Your task to perform on an android device: find snoozed emails in the gmail app Image 0: 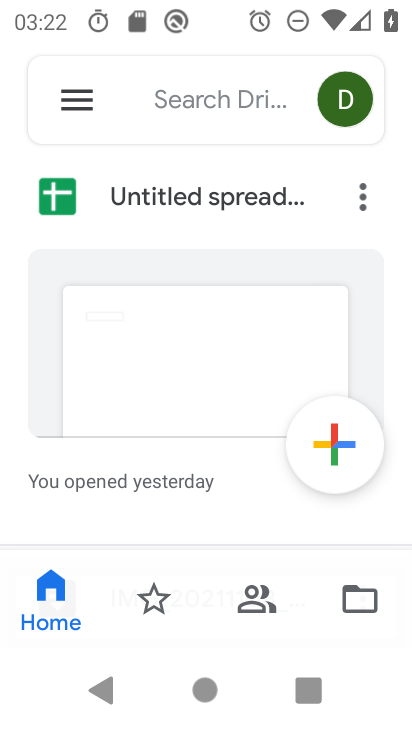
Step 0: press home button
Your task to perform on an android device: find snoozed emails in the gmail app Image 1: 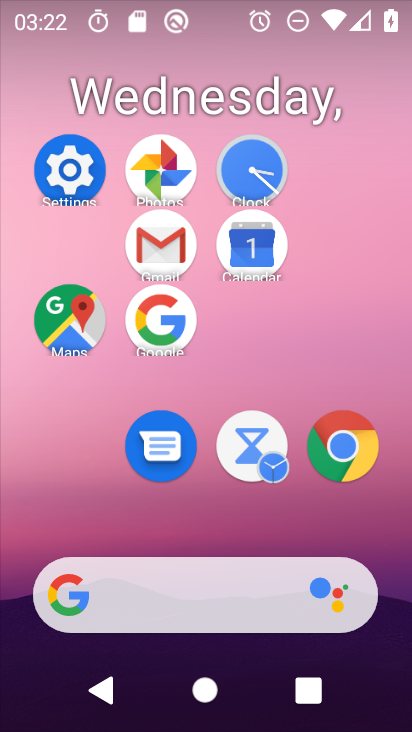
Step 1: click (172, 265)
Your task to perform on an android device: find snoozed emails in the gmail app Image 2: 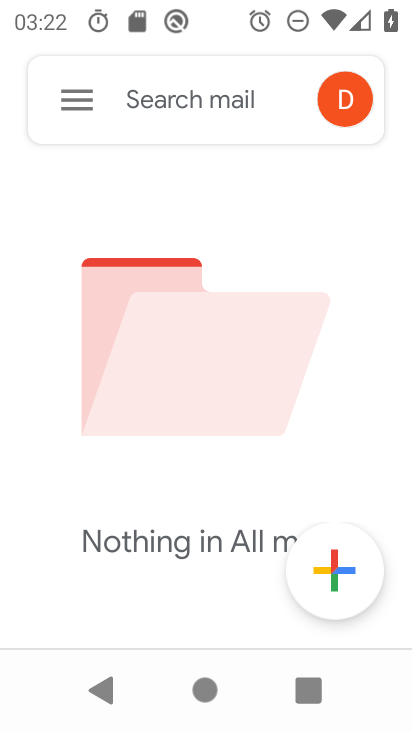
Step 2: click (68, 124)
Your task to perform on an android device: find snoozed emails in the gmail app Image 3: 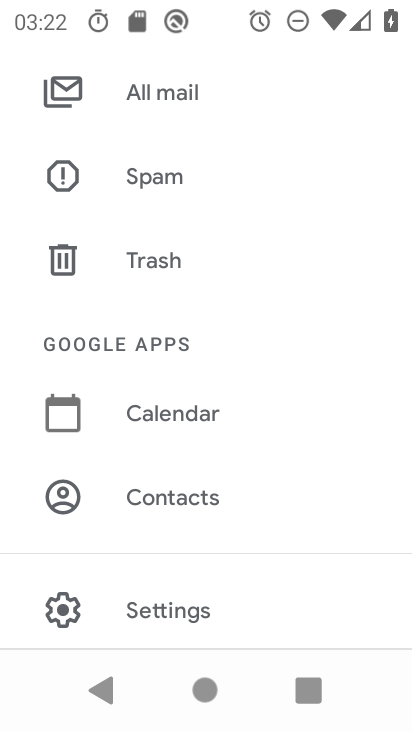
Step 3: drag from (204, 179) to (262, 698)
Your task to perform on an android device: find snoozed emails in the gmail app Image 4: 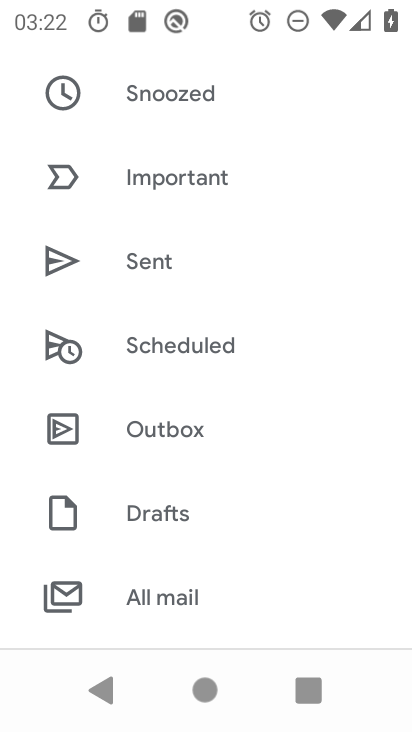
Step 4: drag from (276, 510) to (274, 603)
Your task to perform on an android device: find snoozed emails in the gmail app Image 5: 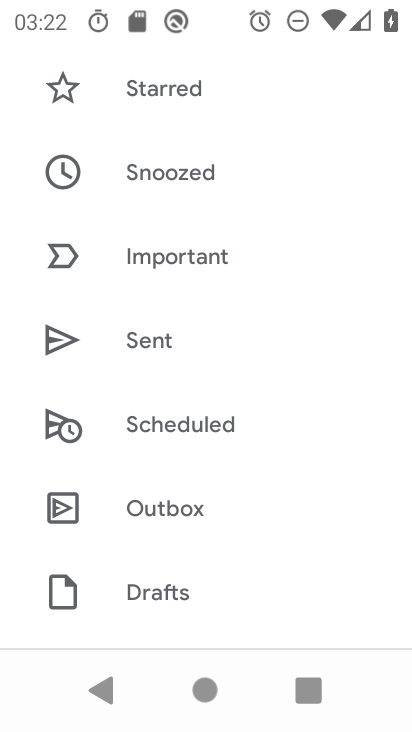
Step 5: click (243, 620)
Your task to perform on an android device: find snoozed emails in the gmail app Image 6: 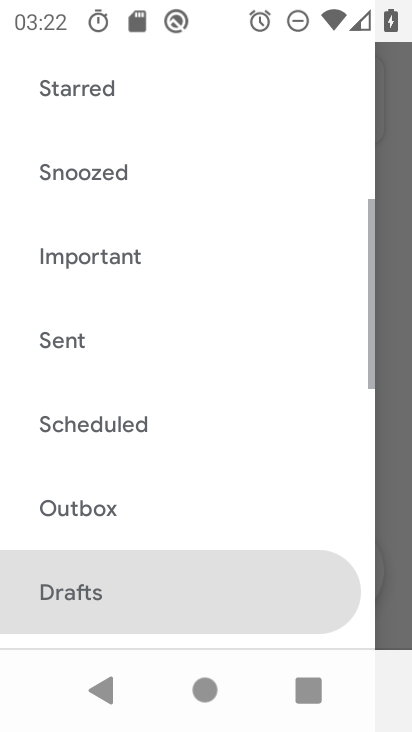
Step 6: click (312, 145)
Your task to perform on an android device: find snoozed emails in the gmail app Image 7: 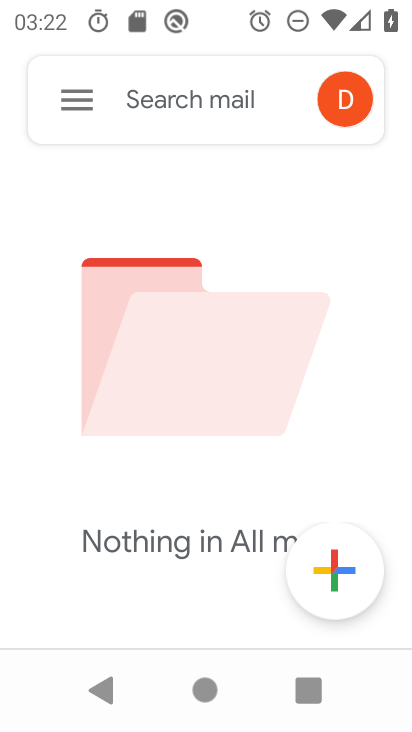
Step 7: click (256, 645)
Your task to perform on an android device: find snoozed emails in the gmail app Image 8: 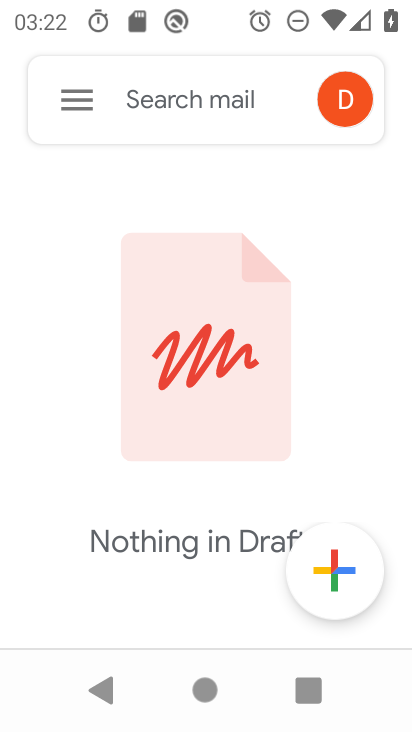
Step 8: click (78, 95)
Your task to perform on an android device: find snoozed emails in the gmail app Image 9: 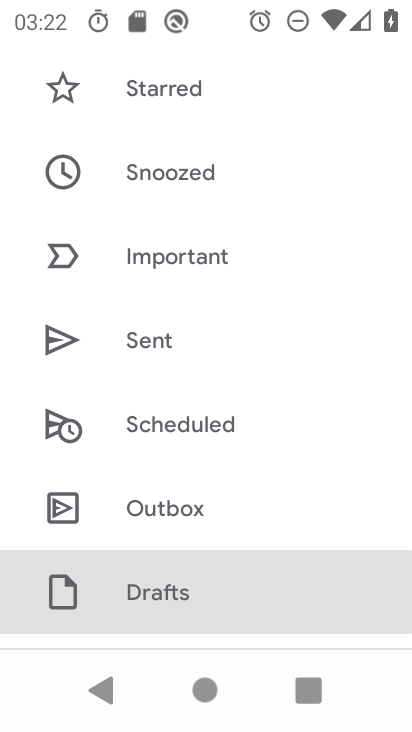
Step 9: click (244, 175)
Your task to perform on an android device: find snoozed emails in the gmail app Image 10: 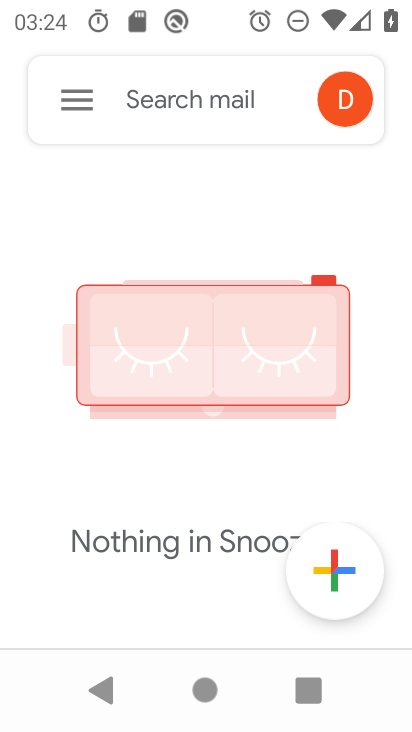
Step 10: task complete